Your task to perform on an android device: Go to Android settings Image 0: 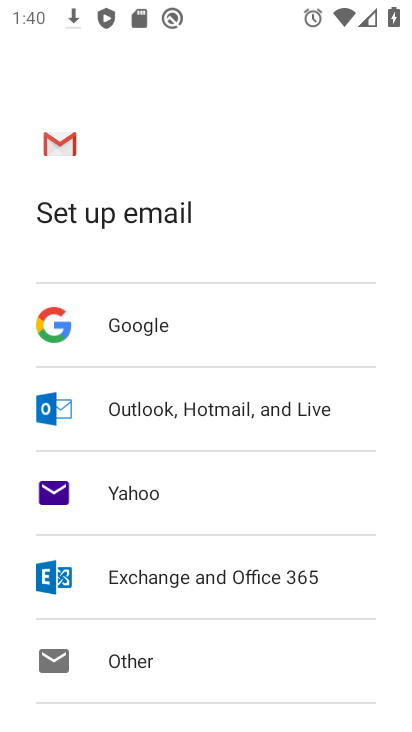
Step 0: press home button
Your task to perform on an android device: Go to Android settings Image 1: 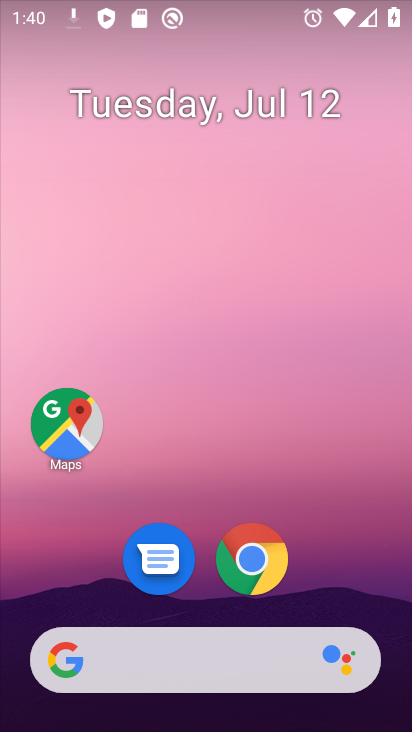
Step 1: drag from (369, 579) to (357, 151)
Your task to perform on an android device: Go to Android settings Image 2: 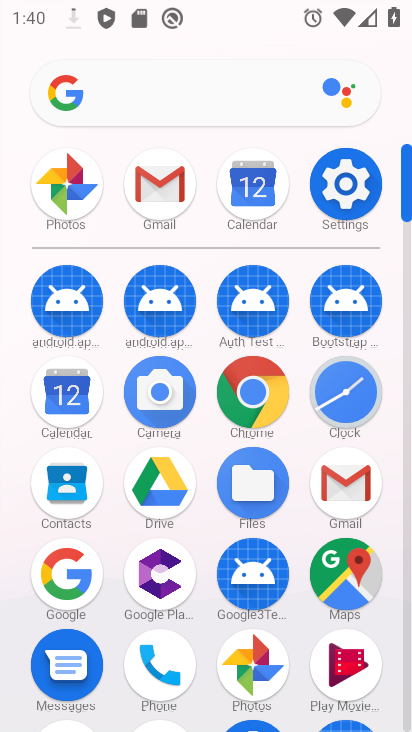
Step 2: click (358, 191)
Your task to perform on an android device: Go to Android settings Image 3: 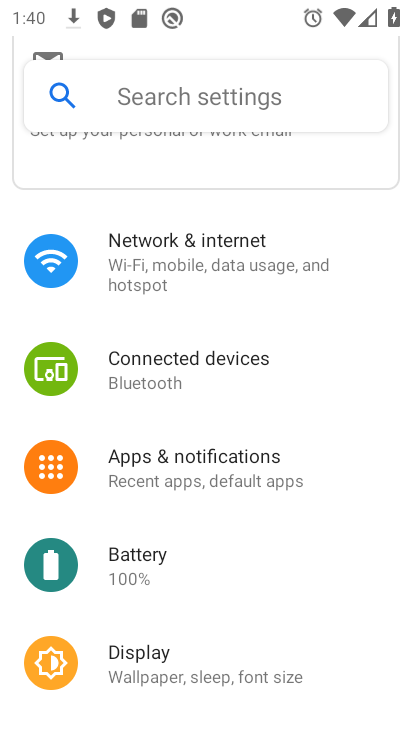
Step 3: drag from (368, 458) to (372, 345)
Your task to perform on an android device: Go to Android settings Image 4: 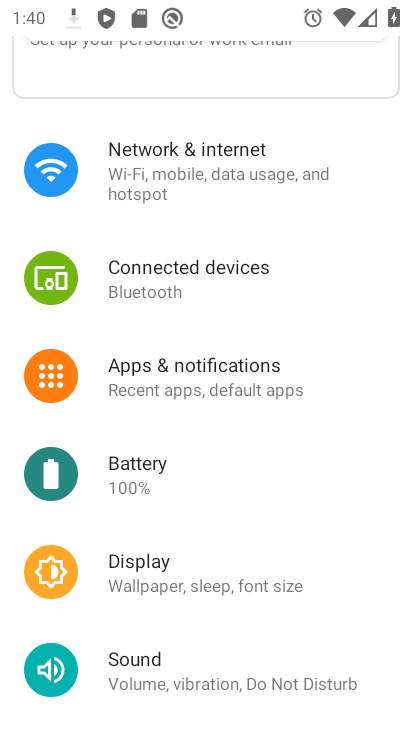
Step 4: drag from (345, 380) to (356, 241)
Your task to perform on an android device: Go to Android settings Image 5: 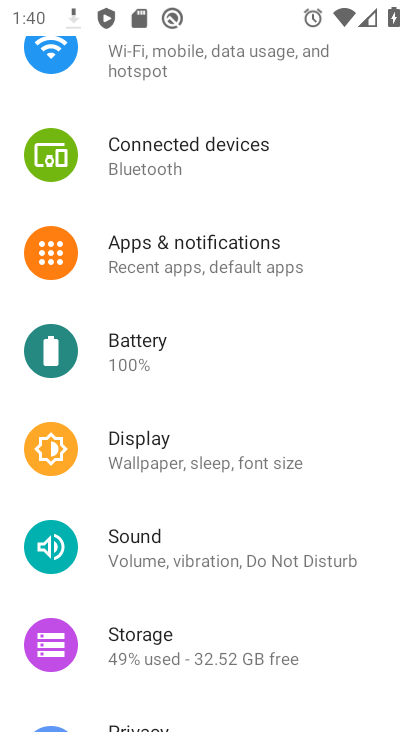
Step 5: drag from (360, 406) to (348, 259)
Your task to perform on an android device: Go to Android settings Image 6: 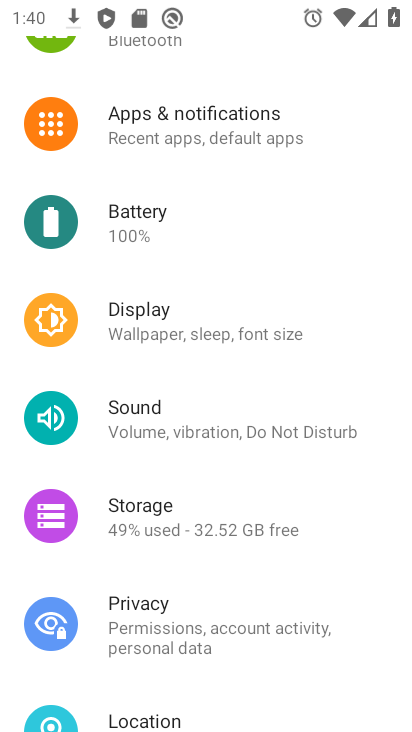
Step 6: drag from (349, 394) to (352, 281)
Your task to perform on an android device: Go to Android settings Image 7: 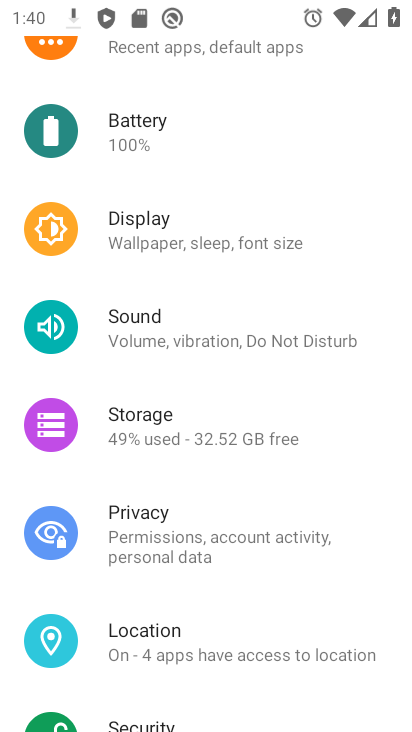
Step 7: drag from (362, 426) to (359, 318)
Your task to perform on an android device: Go to Android settings Image 8: 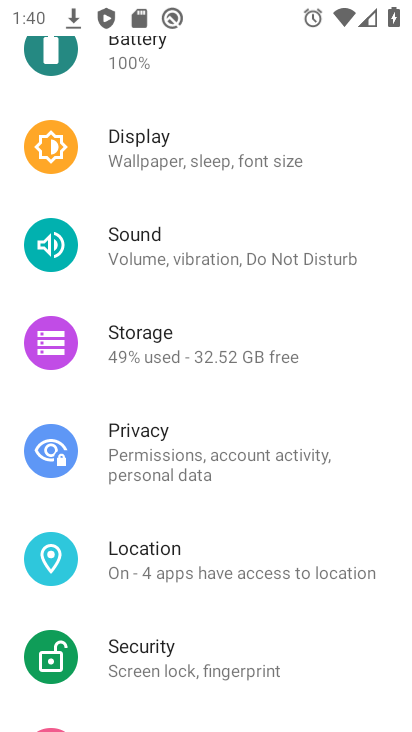
Step 8: drag from (371, 485) to (346, 291)
Your task to perform on an android device: Go to Android settings Image 9: 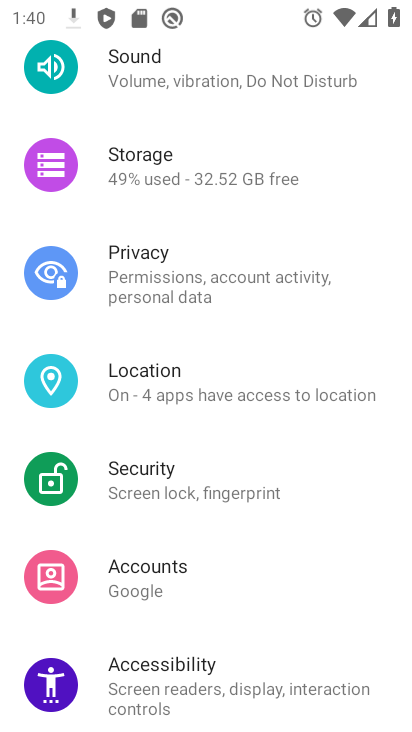
Step 9: drag from (349, 526) to (336, 362)
Your task to perform on an android device: Go to Android settings Image 10: 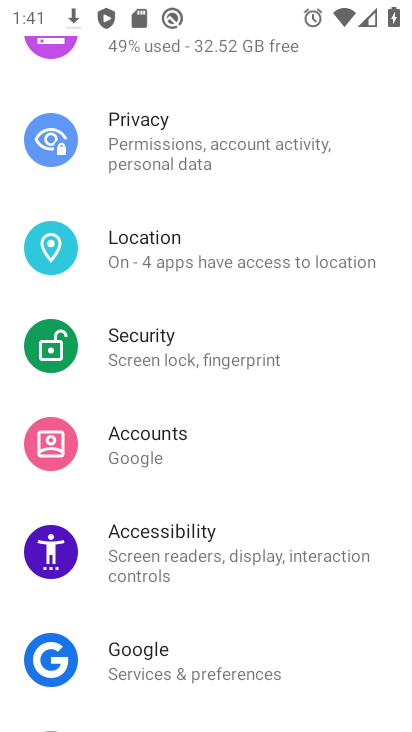
Step 10: drag from (363, 449) to (352, 284)
Your task to perform on an android device: Go to Android settings Image 11: 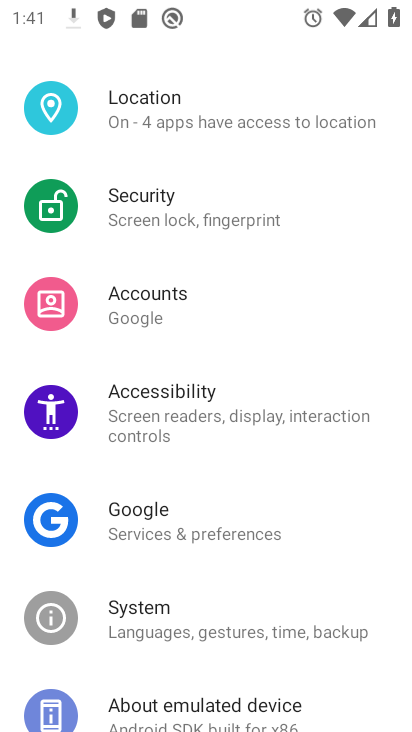
Step 11: drag from (350, 504) to (322, 310)
Your task to perform on an android device: Go to Android settings Image 12: 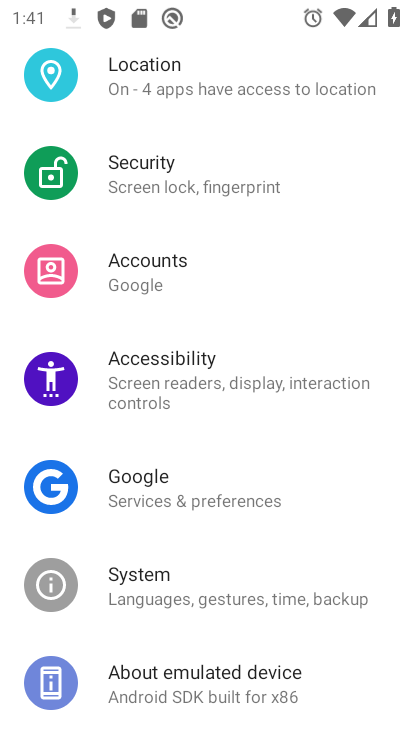
Step 12: click (268, 592)
Your task to perform on an android device: Go to Android settings Image 13: 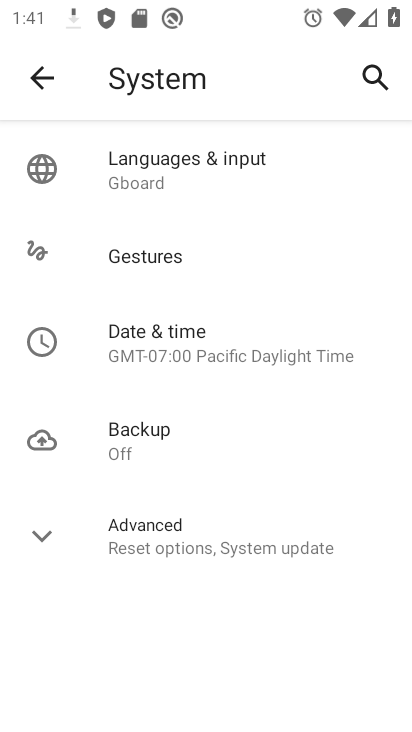
Step 13: click (201, 533)
Your task to perform on an android device: Go to Android settings Image 14: 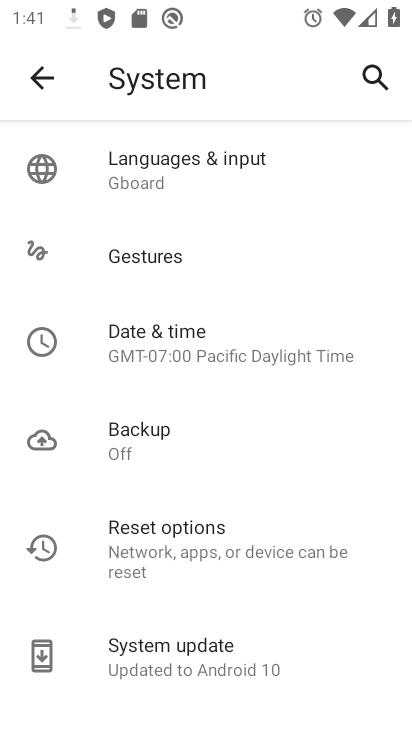
Step 14: task complete